Your task to perform on an android device: change your default location settings in chrome Image 0: 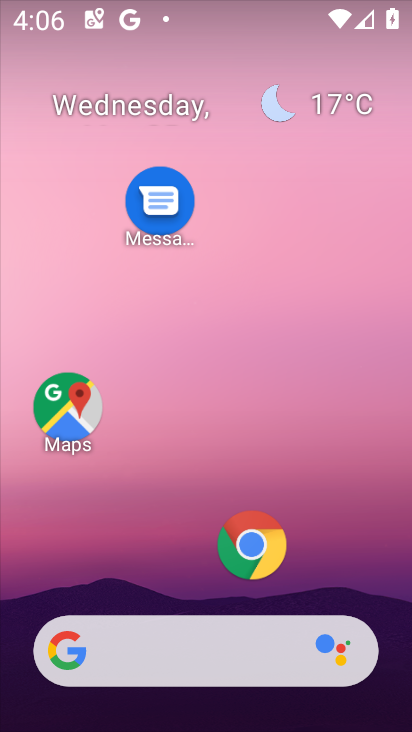
Step 0: click (256, 553)
Your task to perform on an android device: change your default location settings in chrome Image 1: 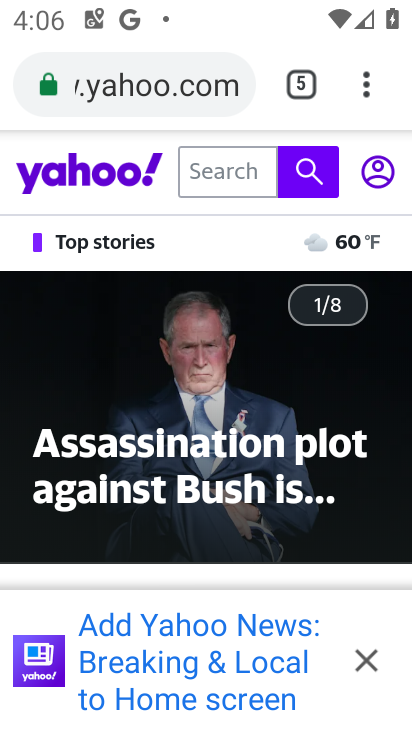
Step 1: click (376, 72)
Your task to perform on an android device: change your default location settings in chrome Image 2: 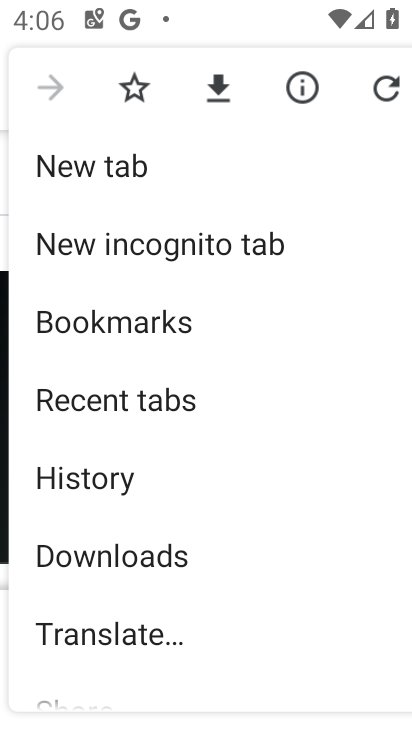
Step 2: drag from (153, 600) to (192, 183)
Your task to perform on an android device: change your default location settings in chrome Image 3: 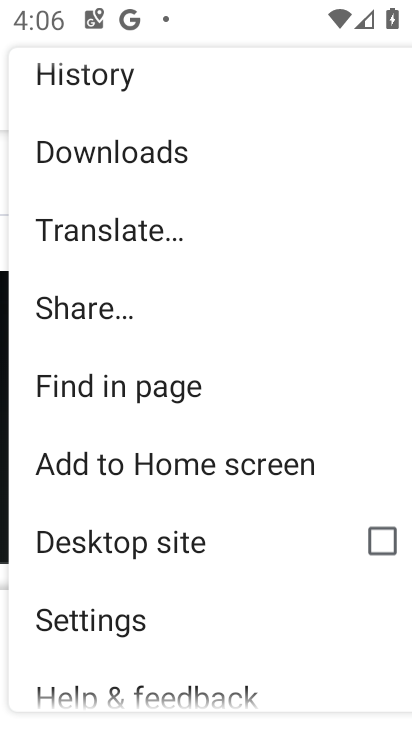
Step 3: click (129, 621)
Your task to perform on an android device: change your default location settings in chrome Image 4: 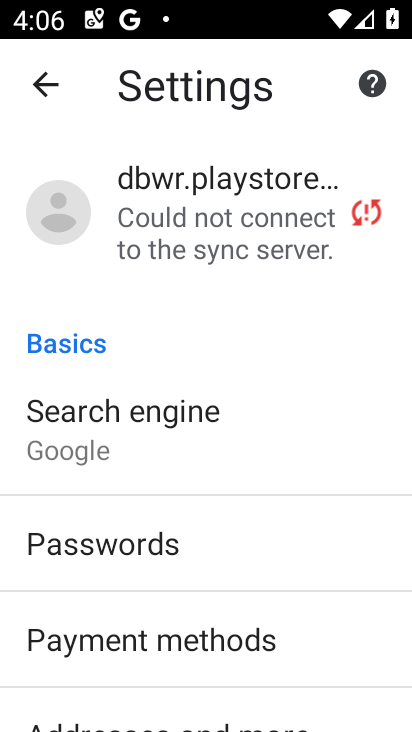
Step 4: drag from (282, 641) to (279, 260)
Your task to perform on an android device: change your default location settings in chrome Image 5: 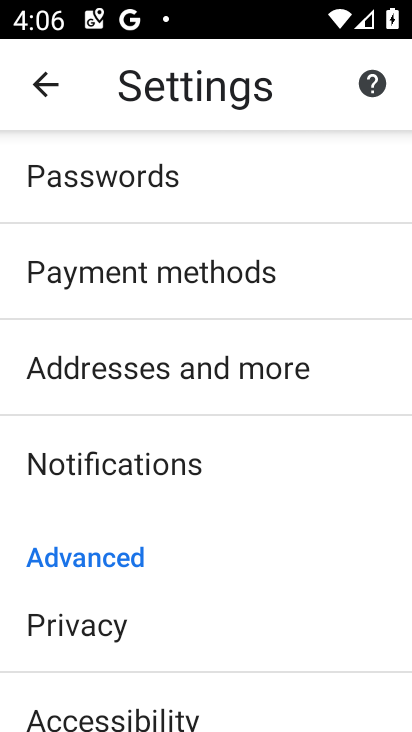
Step 5: drag from (244, 625) to (217, 432)
Your task to perform on an android device: change your default location settings in chrome Image 6: 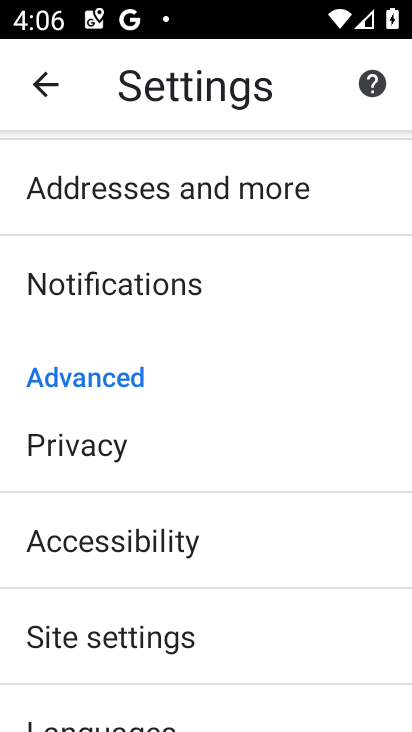
Step 6: click (142, 635)
Your task to perform on an android device: change your default location settings in chrome Image 7: 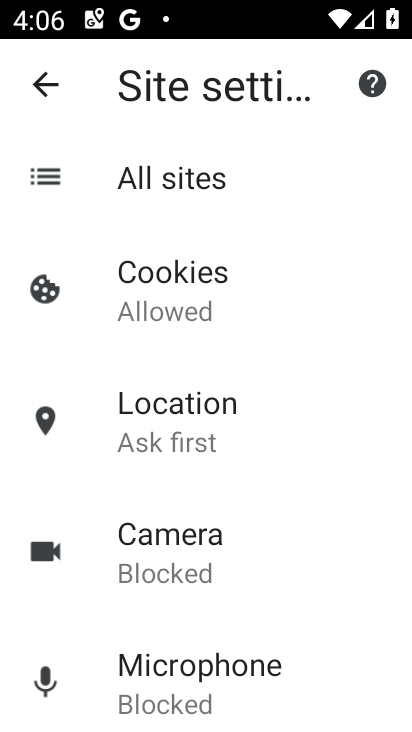
Step 7: click (119, 426)
Your task to perform on an android device: change your default location settings in chrome Image 8: 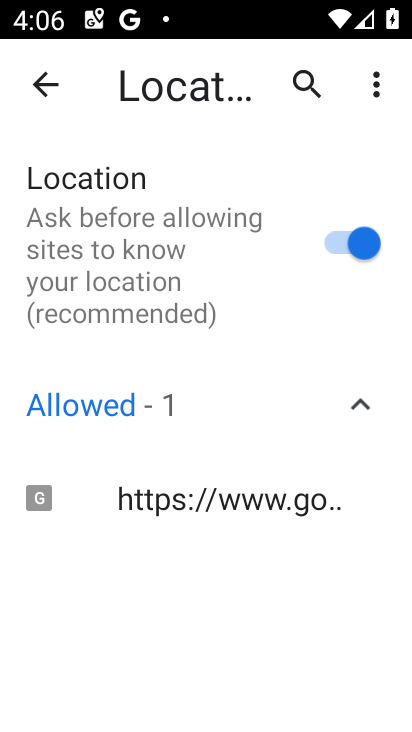
Step 8: click (328, 232)
Your task to perform on an android device: change your default location settings in chrome Image 9: 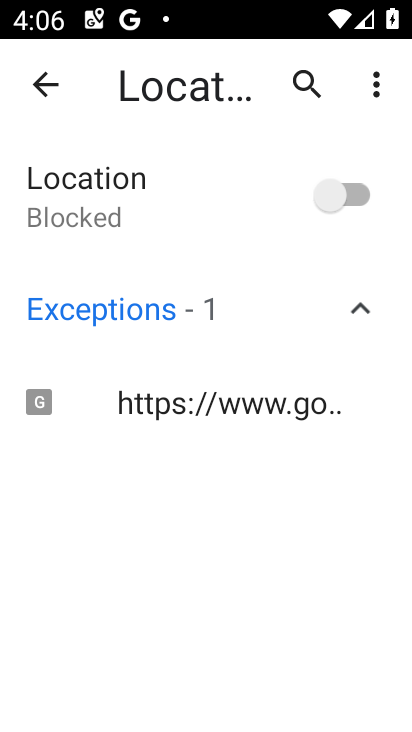
Step 9: task complete